Your task to perform on an android device: Search for "razer deathadder" on amazon.com, select the first entry, add it to the cart, then select checkout. Image 0: 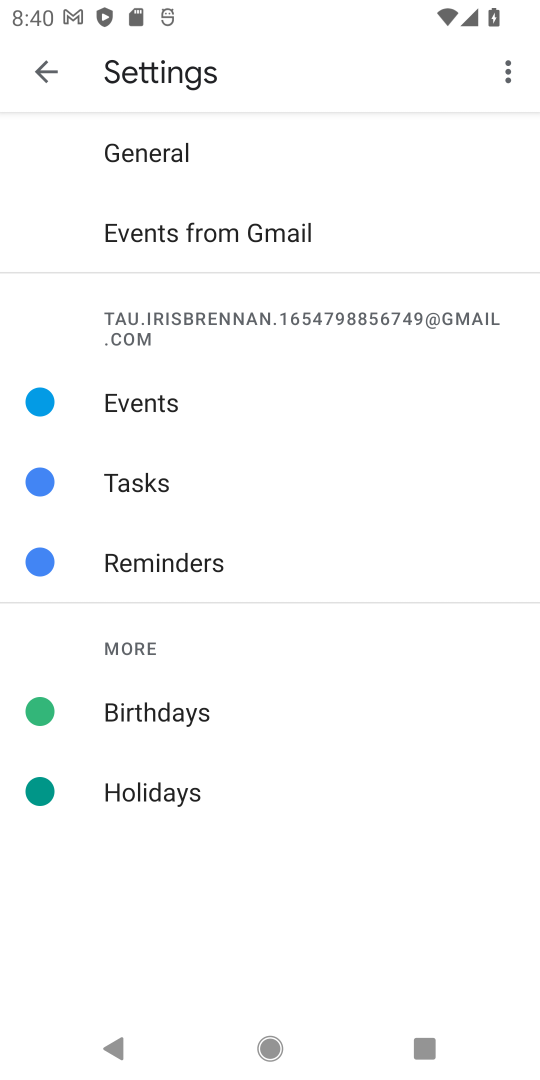
Step 0: press home button
Your task to perform on an android device: Search for "razer deathadder" on amazon.com, select the first entry, add it to the cart, then select checkout. Image 1: 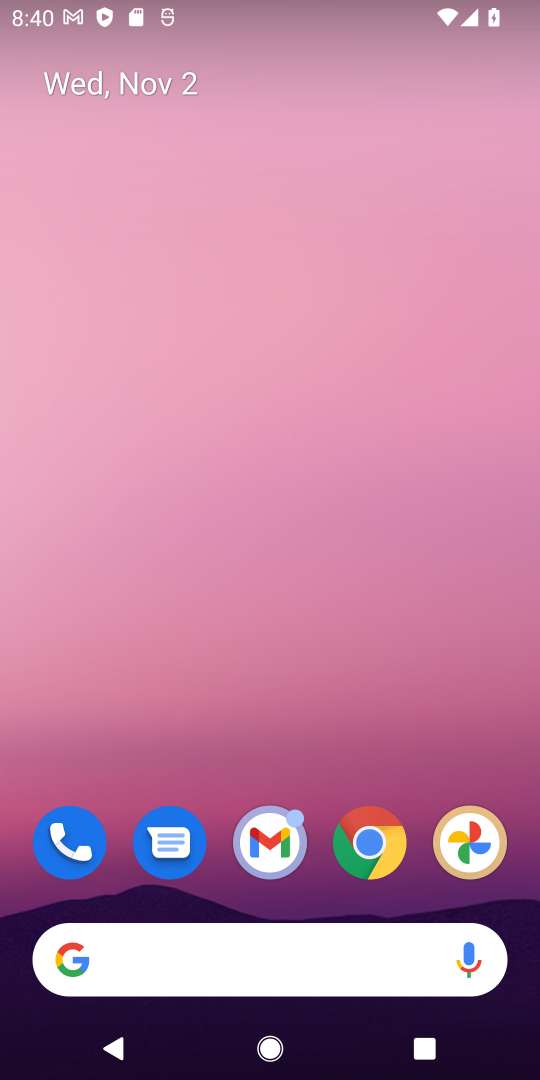
Step 1: drag from (228, 762) to (287, 88)
Your task to perform on an android device: Search for "razer deathadder" on amazon.com, select the first entry, add it to the cart, then select checkout. Image 2: 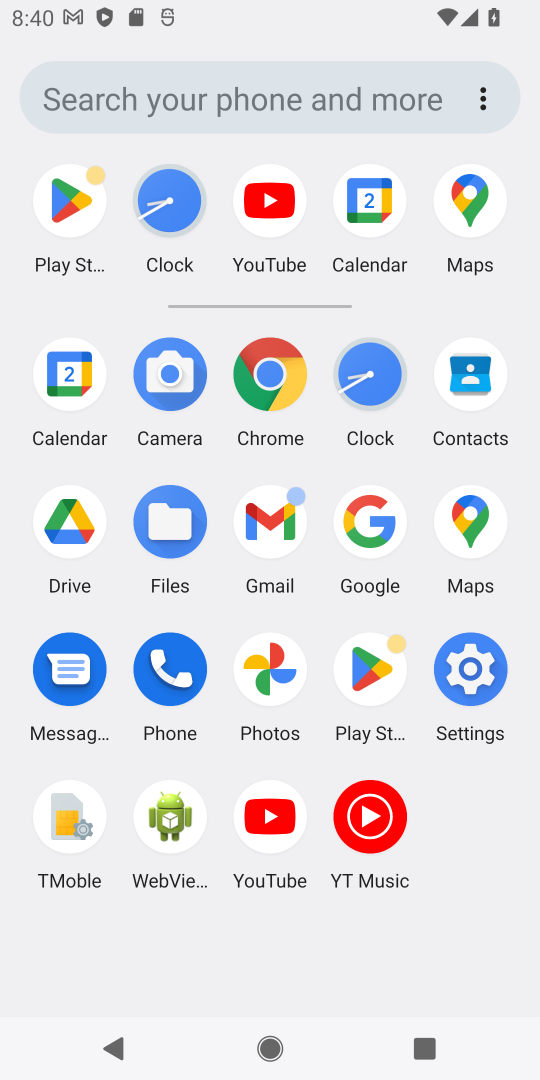
Step 2: click (369, 506)
Your task to perform on an android device: Search for "razer deathadder" on amazon.com, select the first entry, add it to the cart, then select checkout. Image 3: 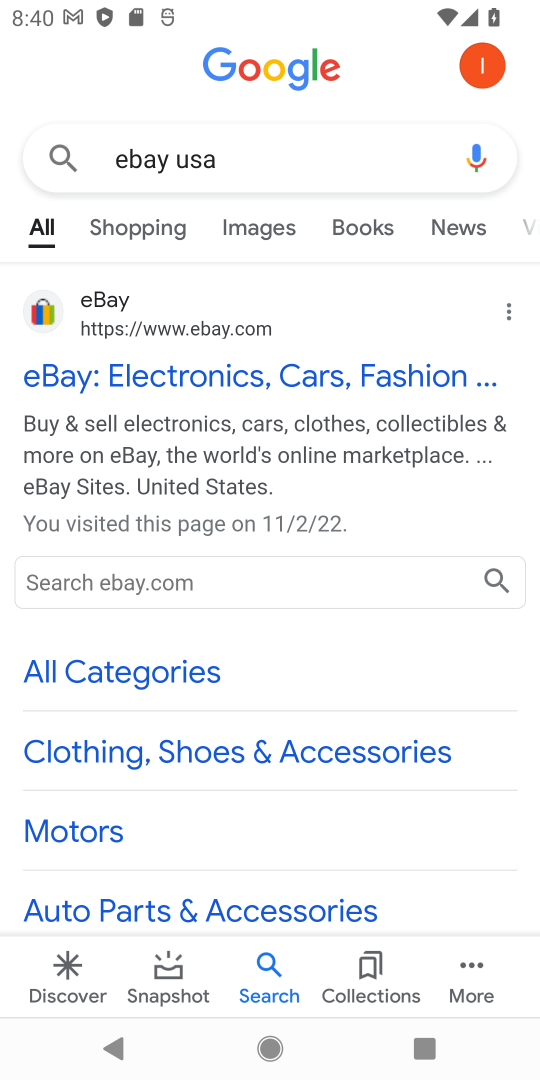
Step 3: click (247, 164)
Your task to perform on an android device: Search for "razer deathadder" on amazon.com, select the first entry, add it to the cart, then select checkout. Image 4: 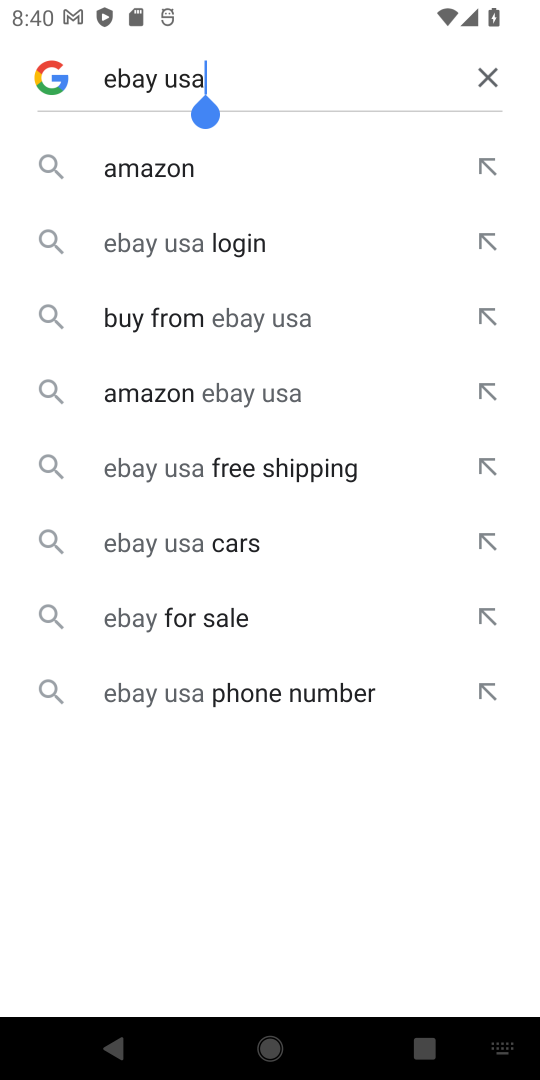
Step 4: click (156, 165)
Your task to perform on an android device: Search for "razer deathadder" on amazon.com, select the first entry, add it to the cart, then select checkout. Image 5: 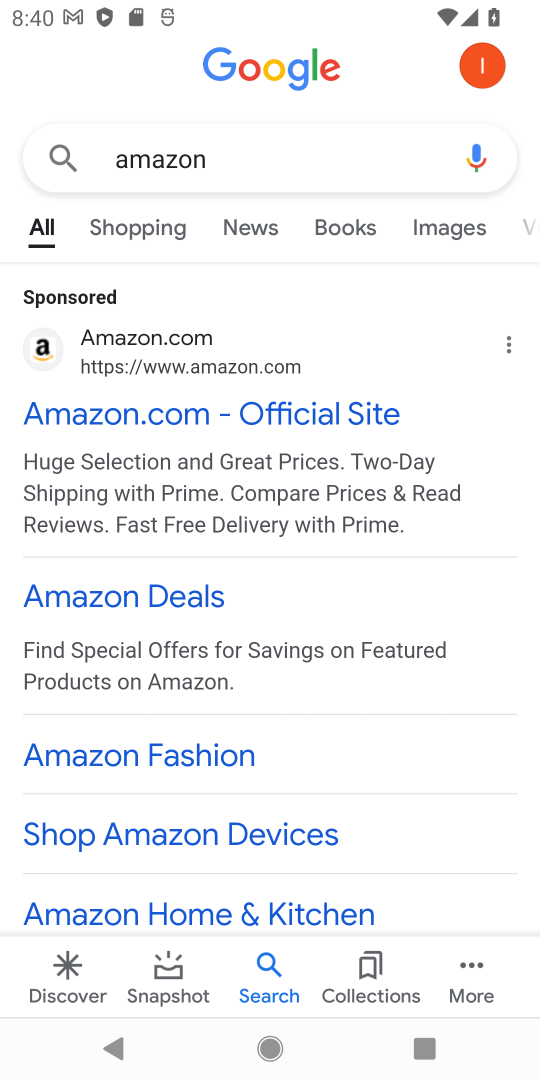
Step 5: click (31, 337)
Your task to perform on an android device: Search for "razer deathadder" on amazon.com, select the first entry, add it to the cart, then select checkout. Image 6: 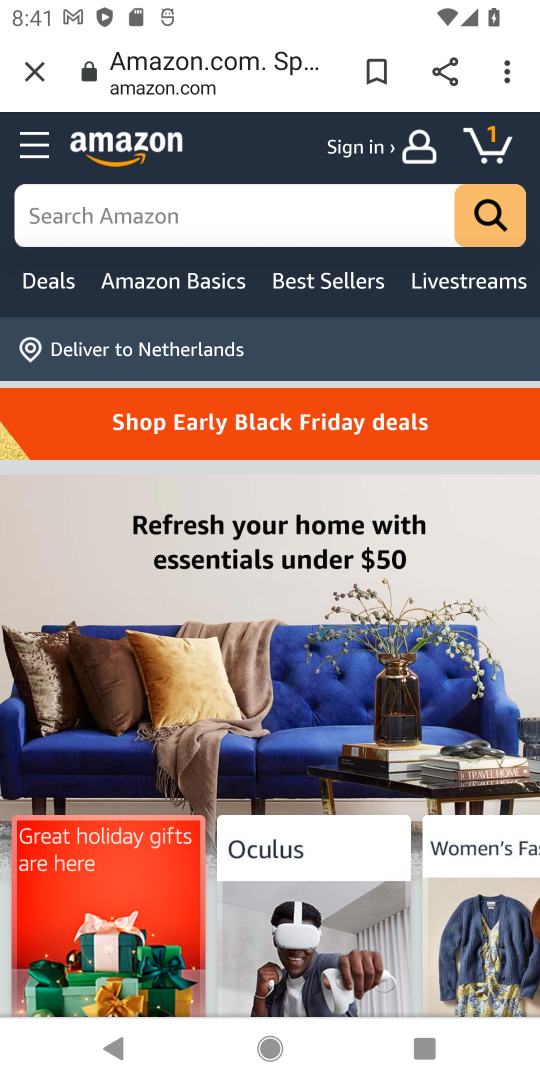
Step 6: click (194, 219)
Your task to perform on an android device: Search for "razer deathadder" on amazon.com, select the first entry, add it to the cart, then select checkout. Image 7: 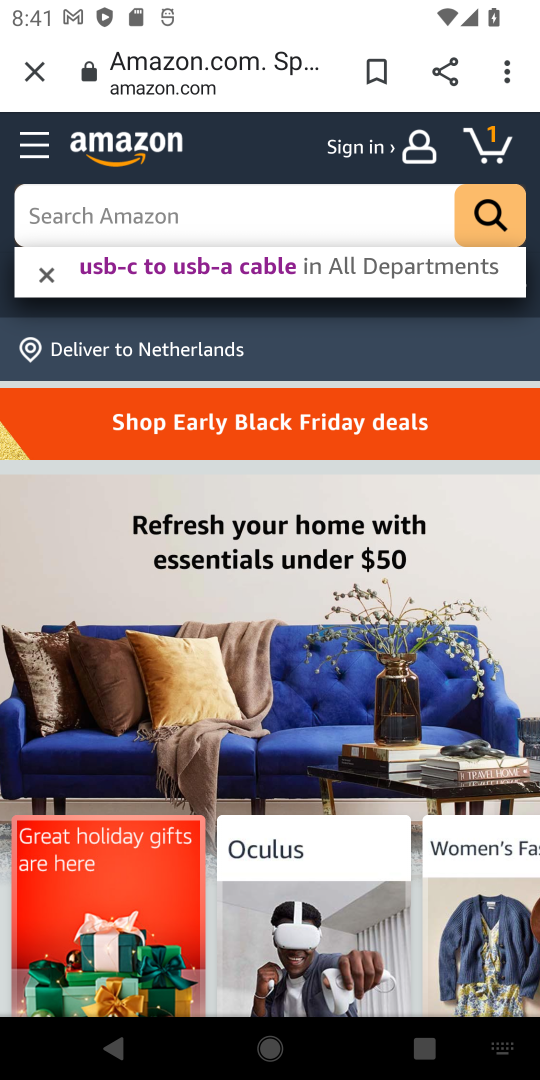
Step 7: type "razer deathadder "
Your task to perform on an android device: Search for "razer deathadder" on amazon.com, select the first entry, add it to the cart, then select checkout. Image 8: 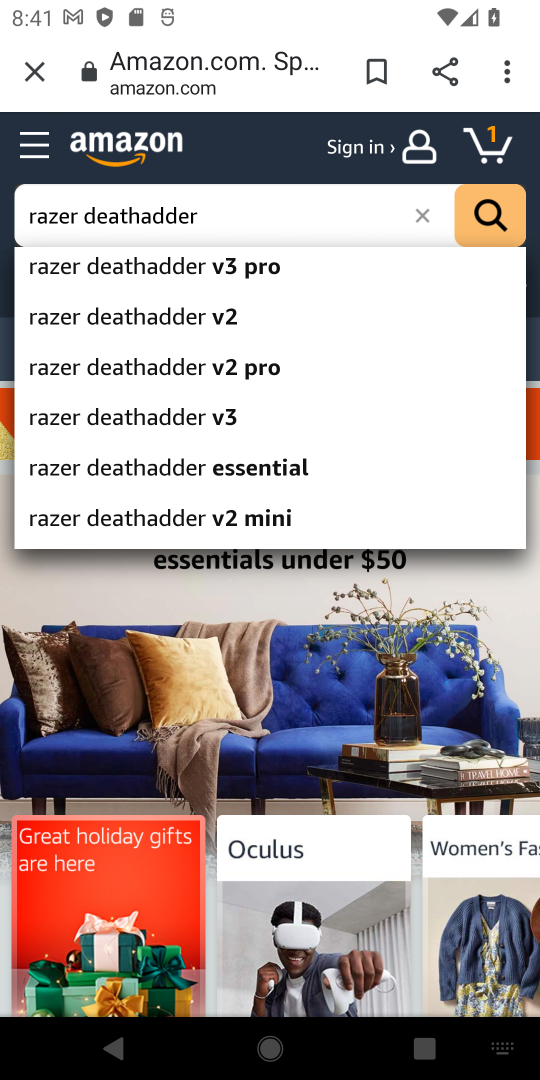
Step 8: click (129, 261)
Your task to perform on an android device: Search for "razer deathadder" on amazon.com, select the first entry, add it to the cart, then select checkout. Image 9: 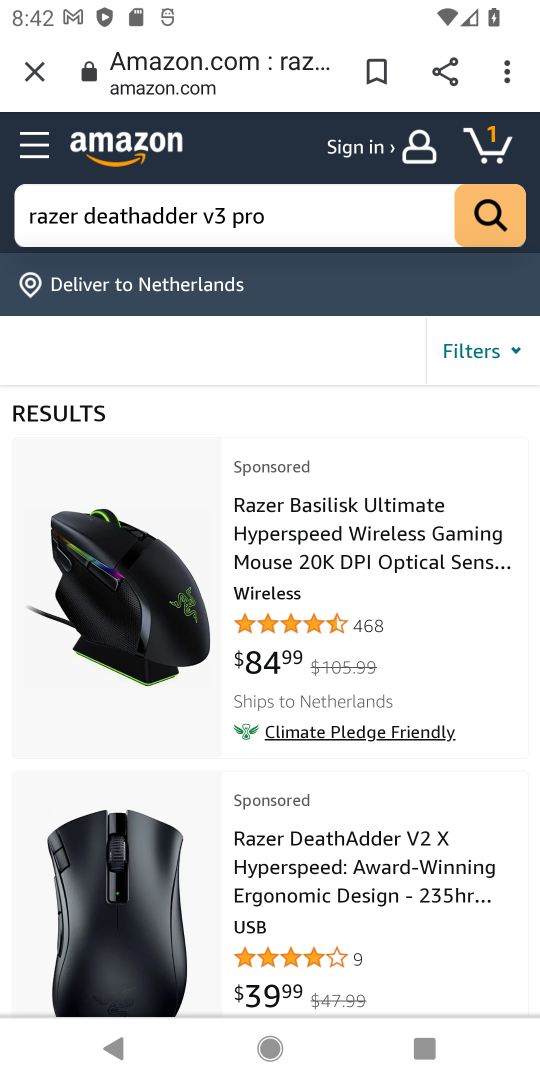
Step 9: click (270, 843)
Your task to perform on an android device: Search for "razer deathadder" on amazon.com, select the first entry, add it to the cart, then select checkout. Image 10: 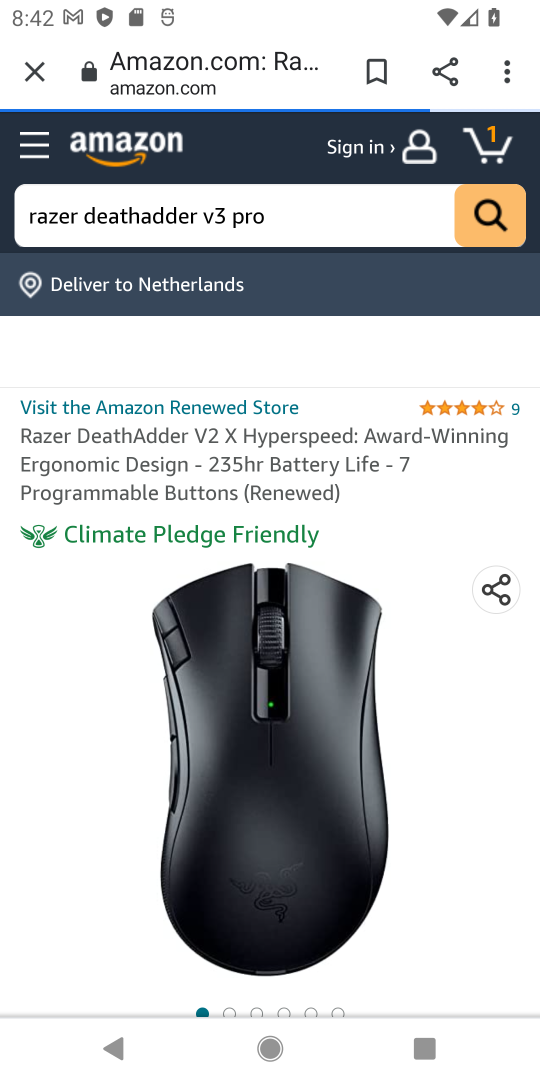
Step 10: drag from (361, 862) to (402, 327)
Your task to perform on an android device: Search for "razer deathadder" on amazon.com, select the first entry, add it to the cart, then select checkout. Image 11: 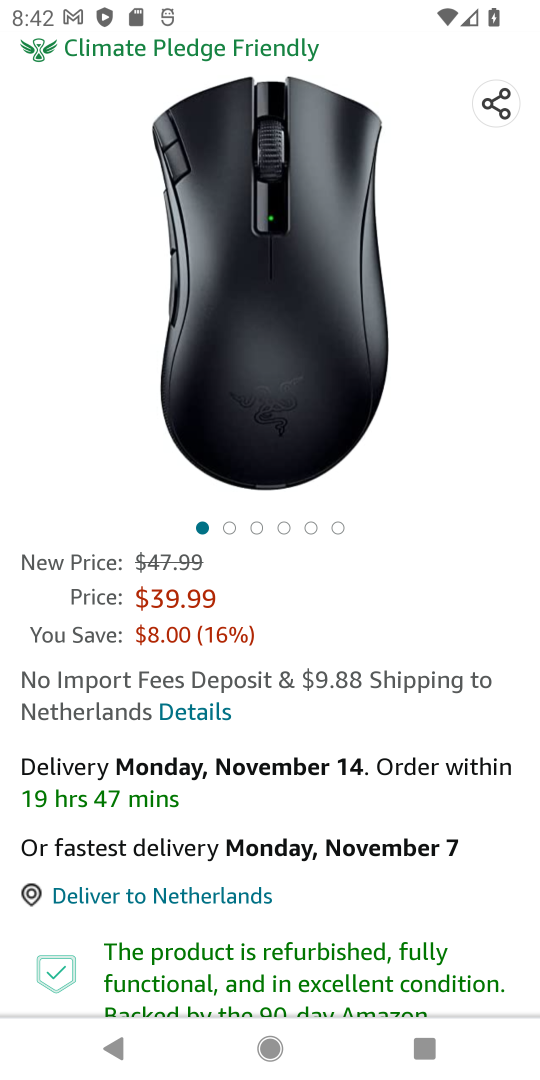
Step 11: drag from (234, 819) to (341, 227)
Your task to perform on an android device: Search for "razer deathadder" on amazon.com, select the first entry, add it to the cart, then select checkout. Image 12: 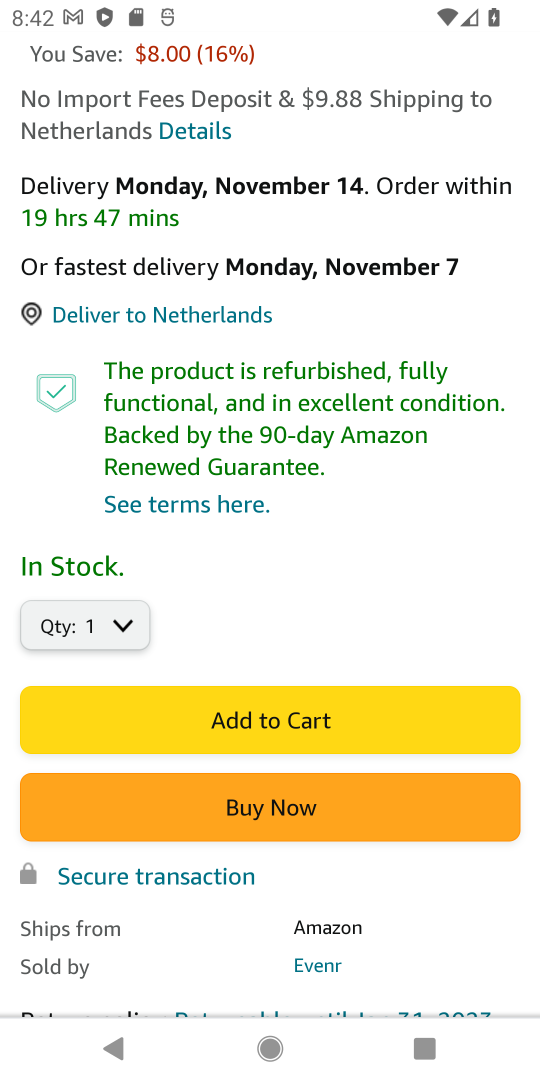
Step 12: drag from (260, 791) to (306, 462)
Your task to perform on an android device: Search for "razer deathadder" on amazon.com, select the first entry, add it to the cart, then select checkout. Image 13: 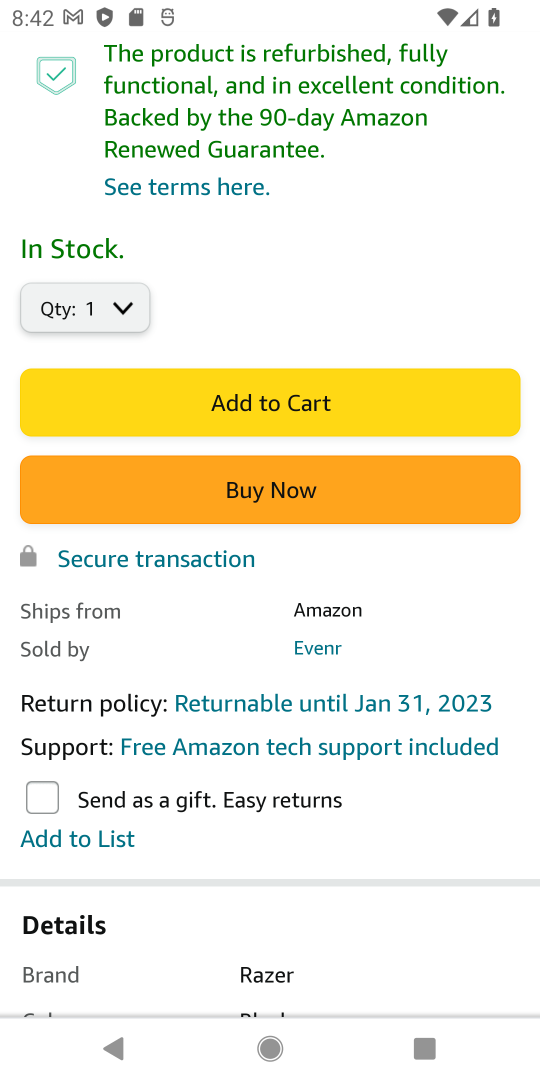
Step 13: click (250, 391)
Your task to perform on an android device: Search for "razer deathadder" on amazon.com, select the first entry, add it to the cart, then select checkout. Image 14: 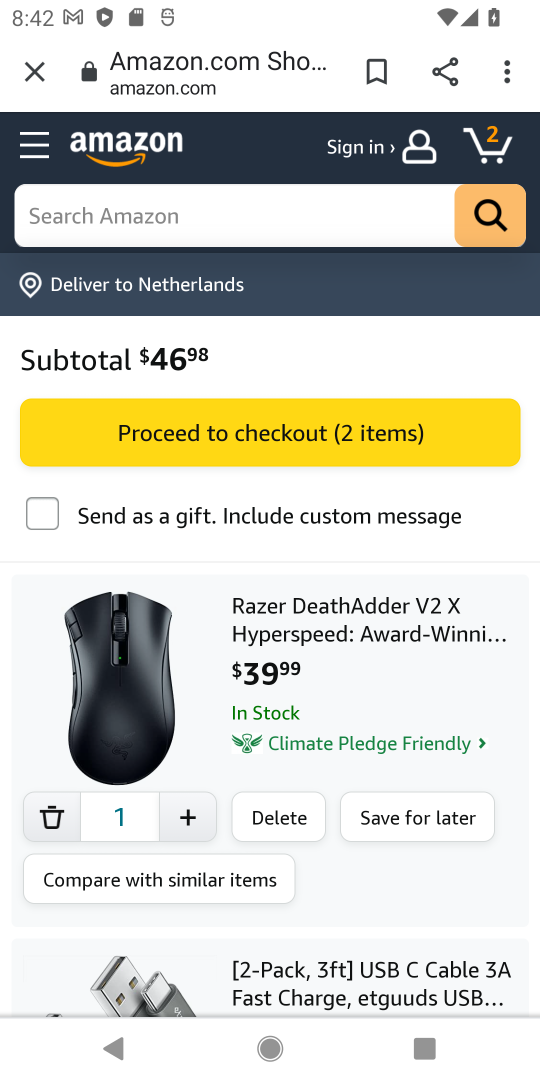
Step 14: task complete